Your task to perform on an android device: Search for custom made wallets on etsy.com Image 0: 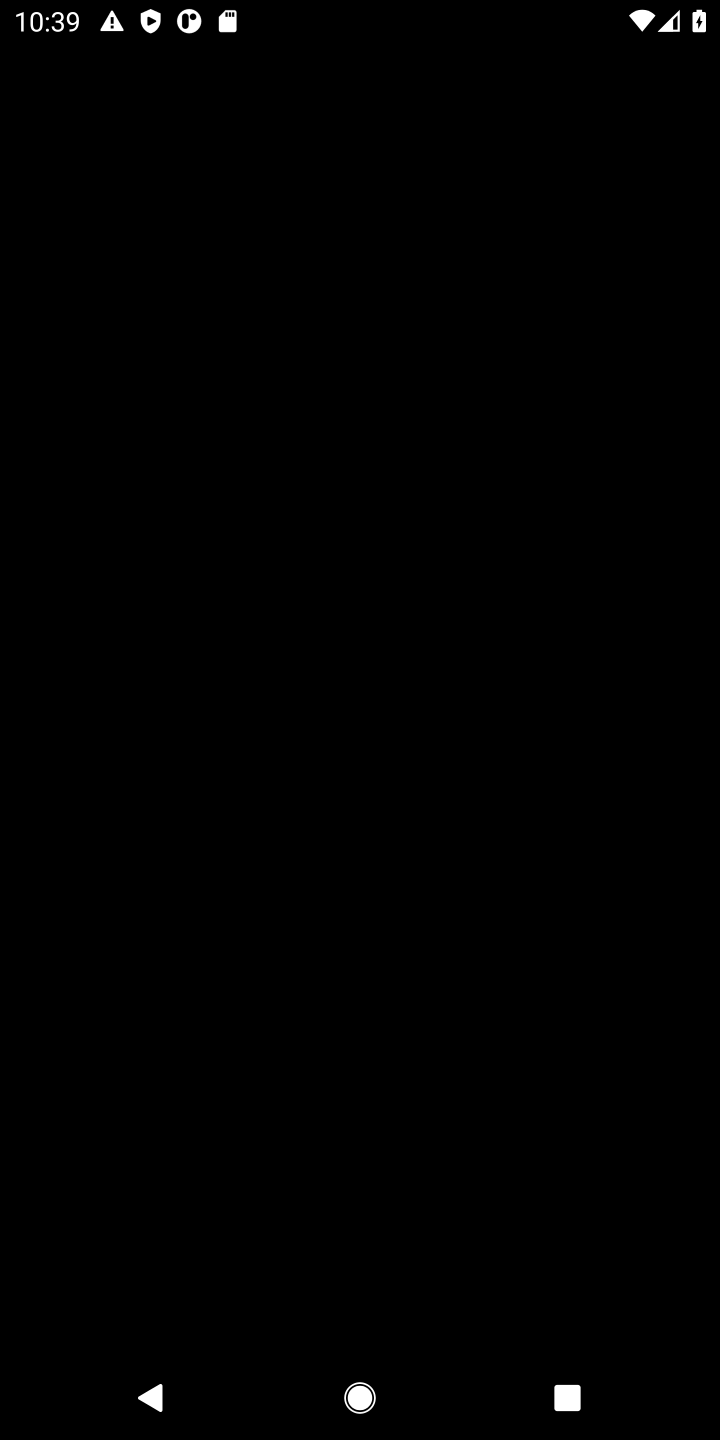
Step 0: press home button
Your task to perform on an android device: Search for custom made wallets on etsy.com Image 1: 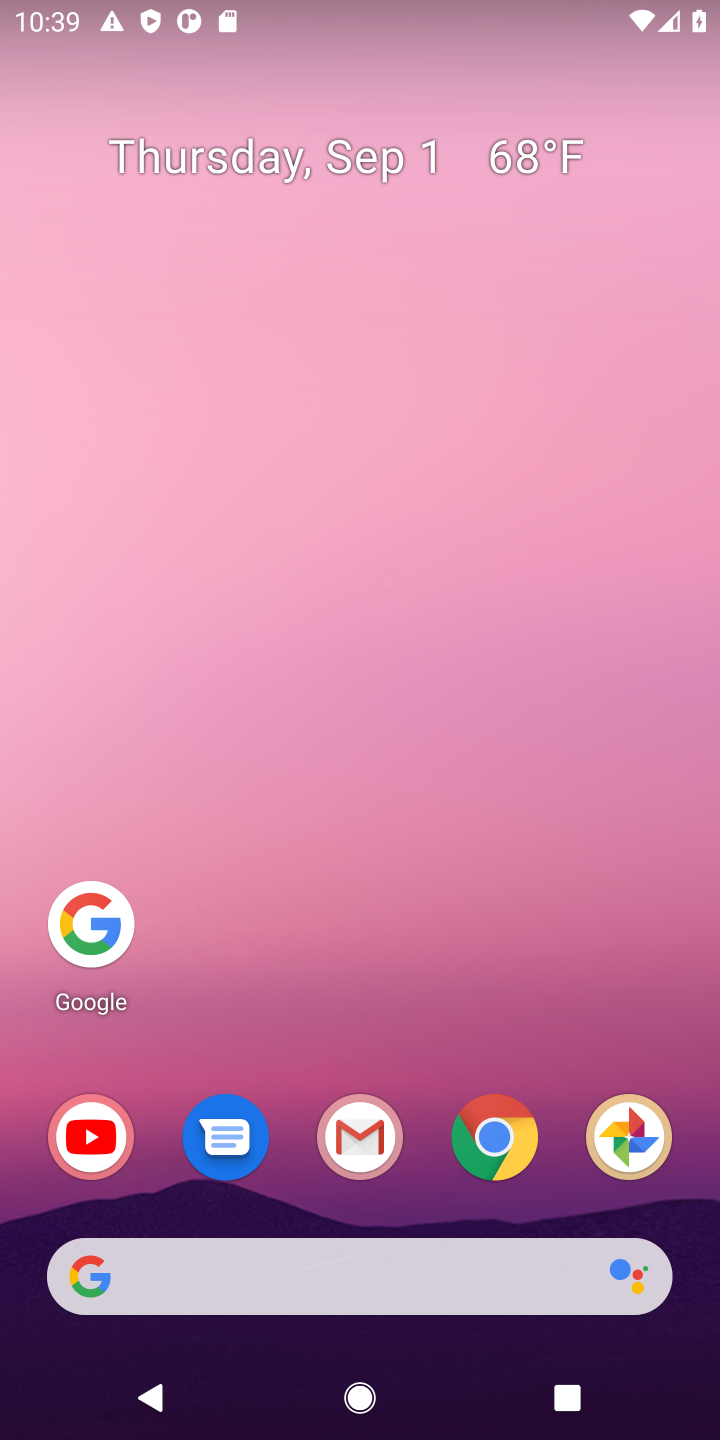
Step 1: click (312, 1261)
Your task to perform on an android device: Search for custom made wallets on etsy.com Image 2: 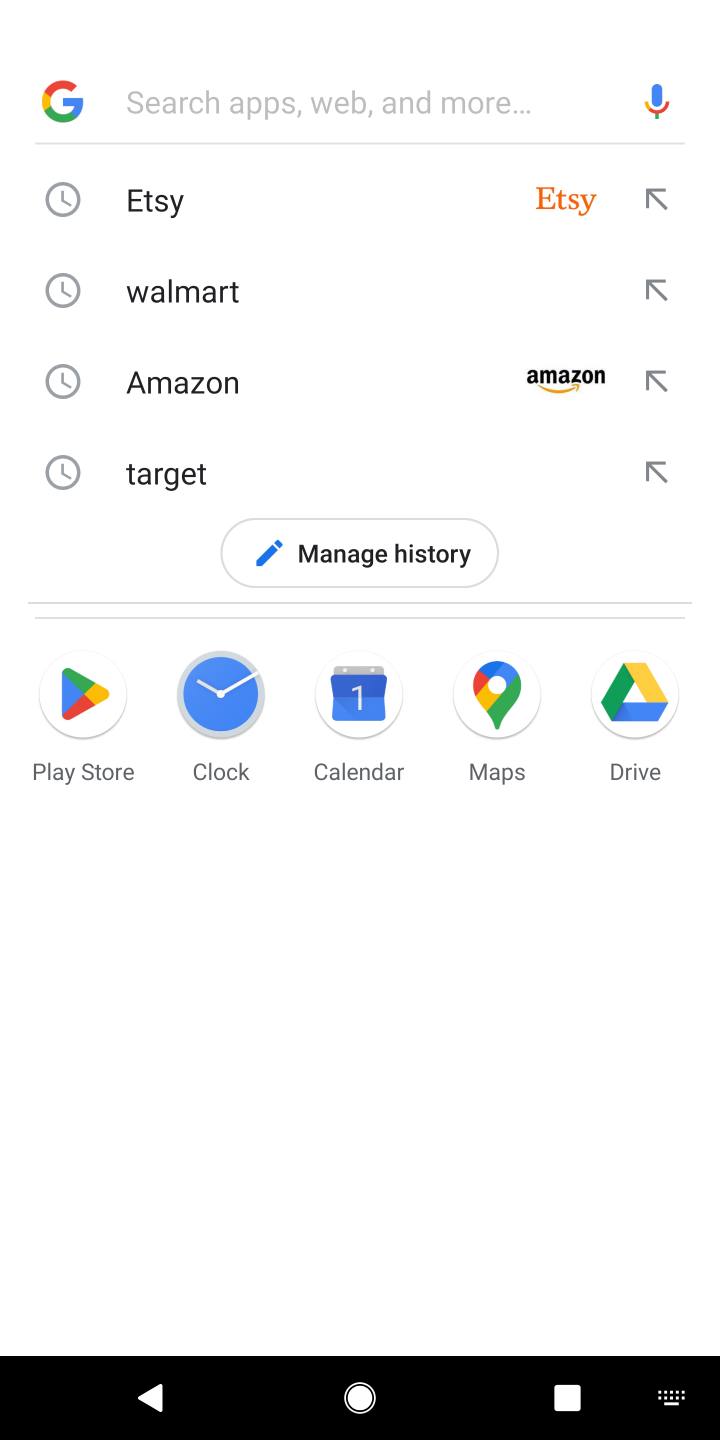
Step 2: click (143, 186)
Your task to perform on an android device: Search for custom made wallets on etsy.com Image 3: 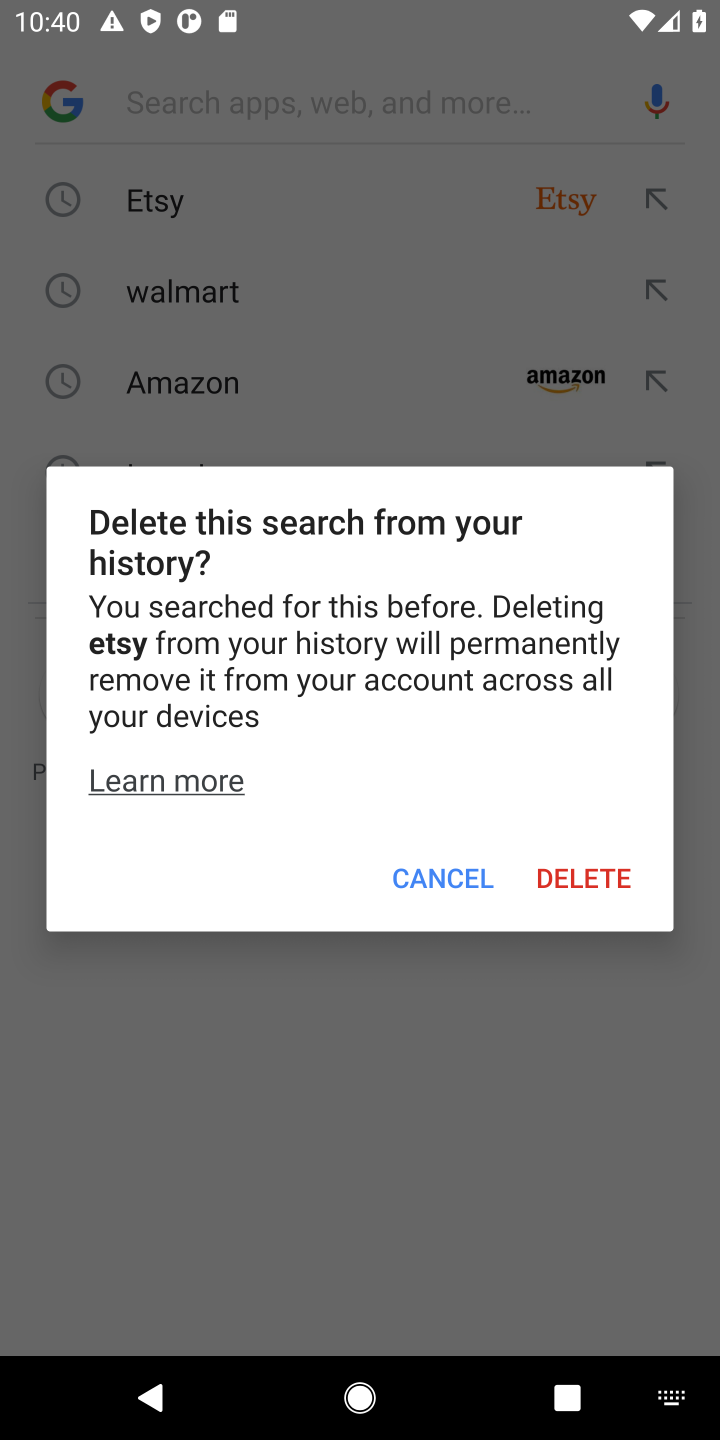
Step 3: click (419, 876)
Your task to perform on an android device: Search for custom made wallets on etsy.com Image 4: 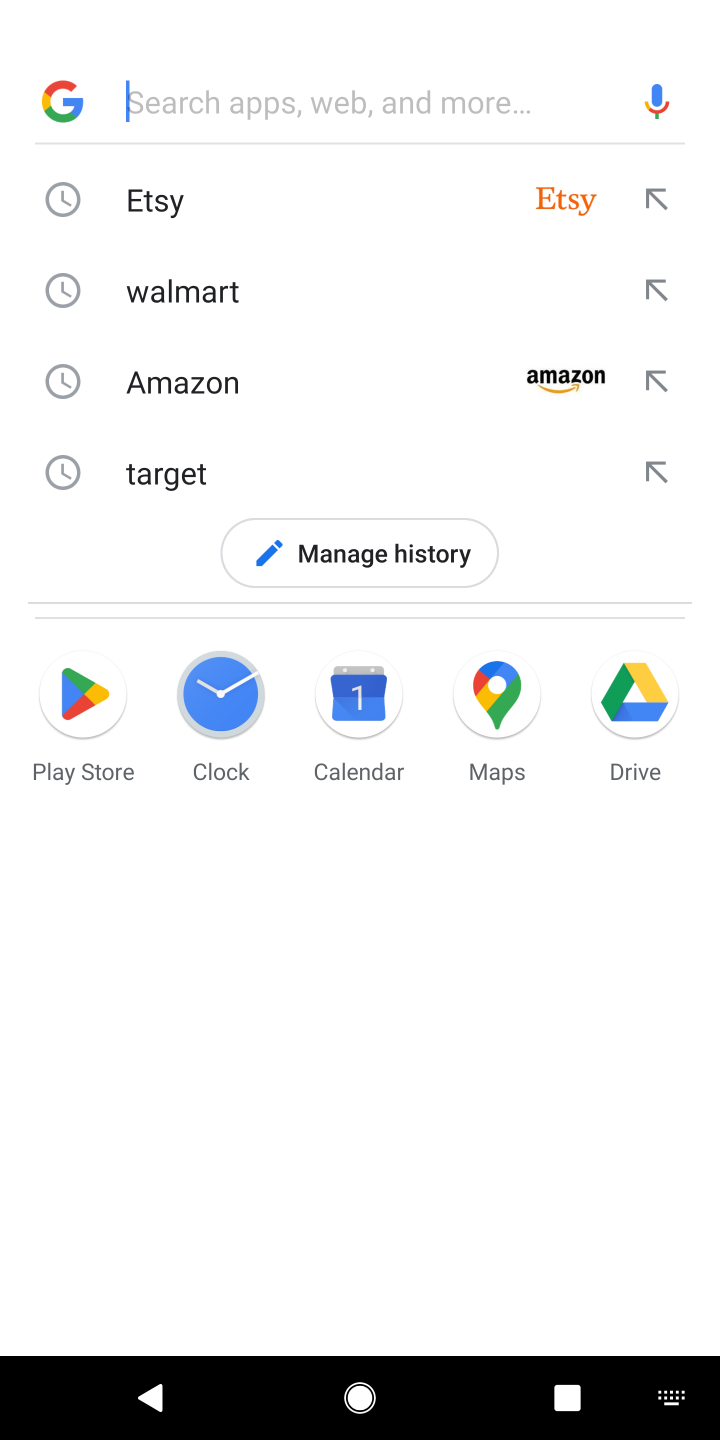
Step 4: click (206, 191)
Your task to perform on an android device: Search for custom made wallets on etsy.com Image 5: 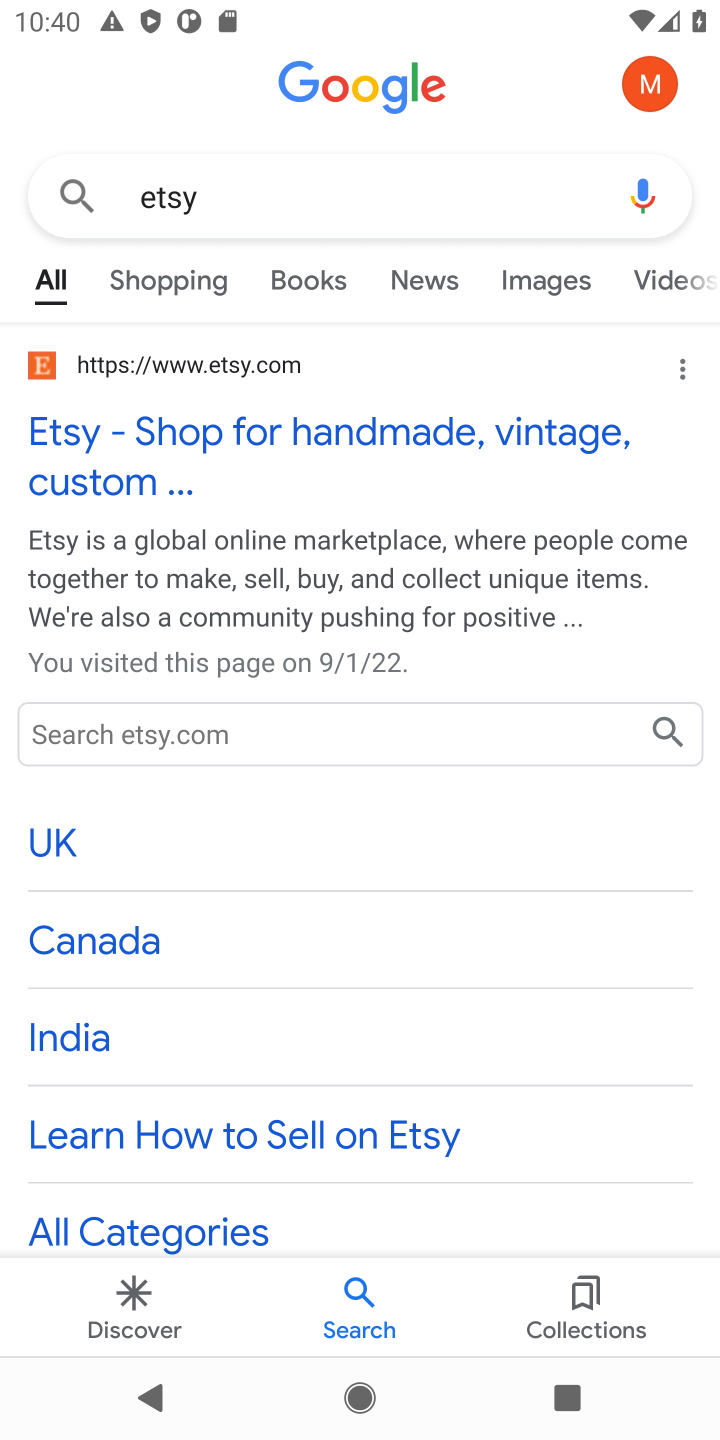
Step 5: click (158, 415)
Your task to perform on an android device: Search for custom made wallets on etsy.com Image 6: 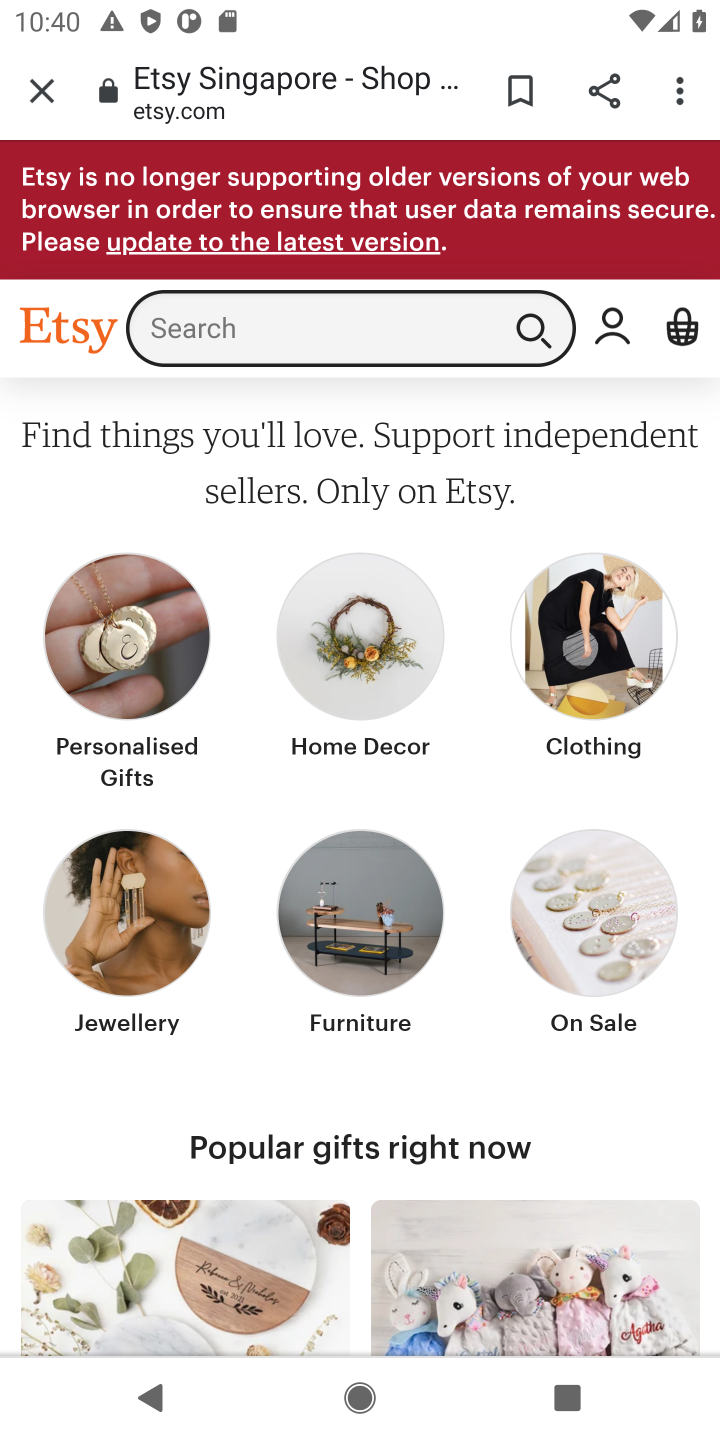
Step 6: click (223, 328)
Your task to perform on an android device: Search for custom made wallets on etsy.com Image 7: 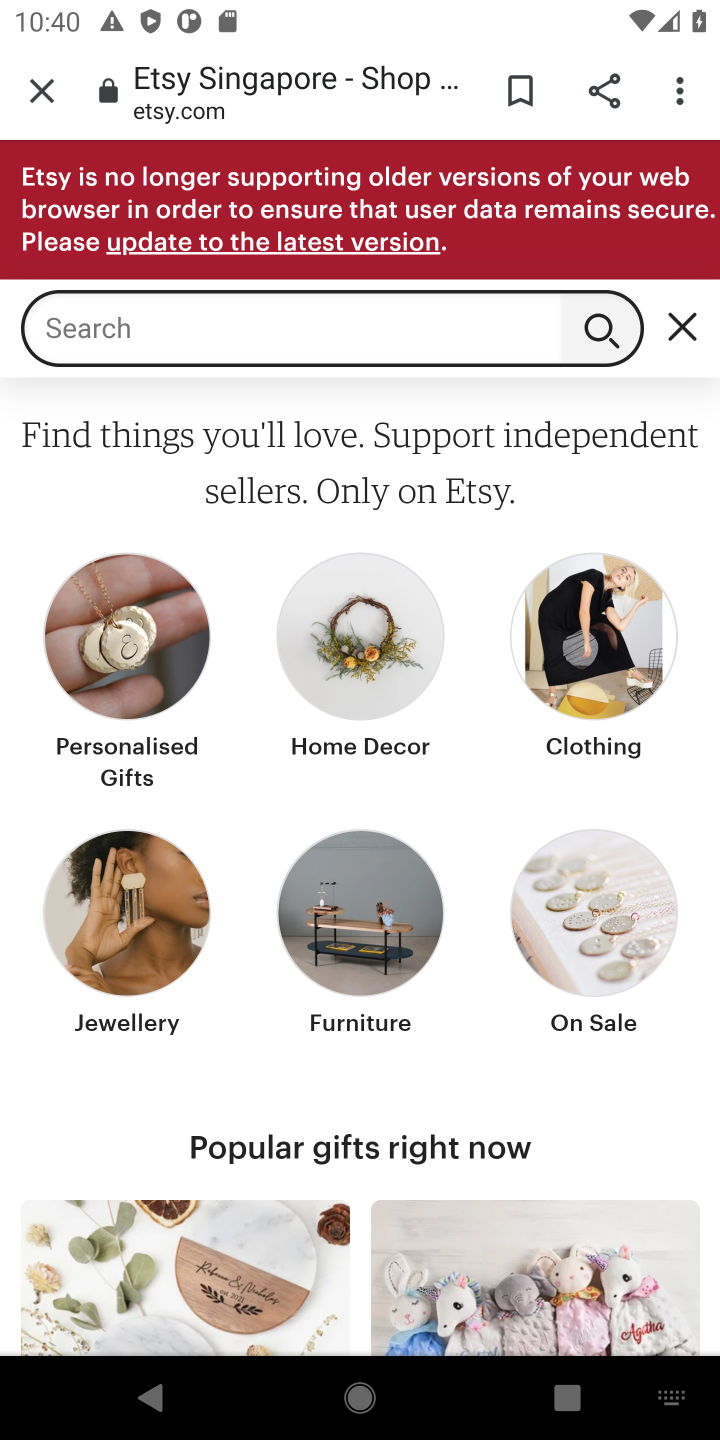
Step 7: type "custom made wallets"
Your task to perform on an android device: Search for custom made wallets on etsy.com Image 8: 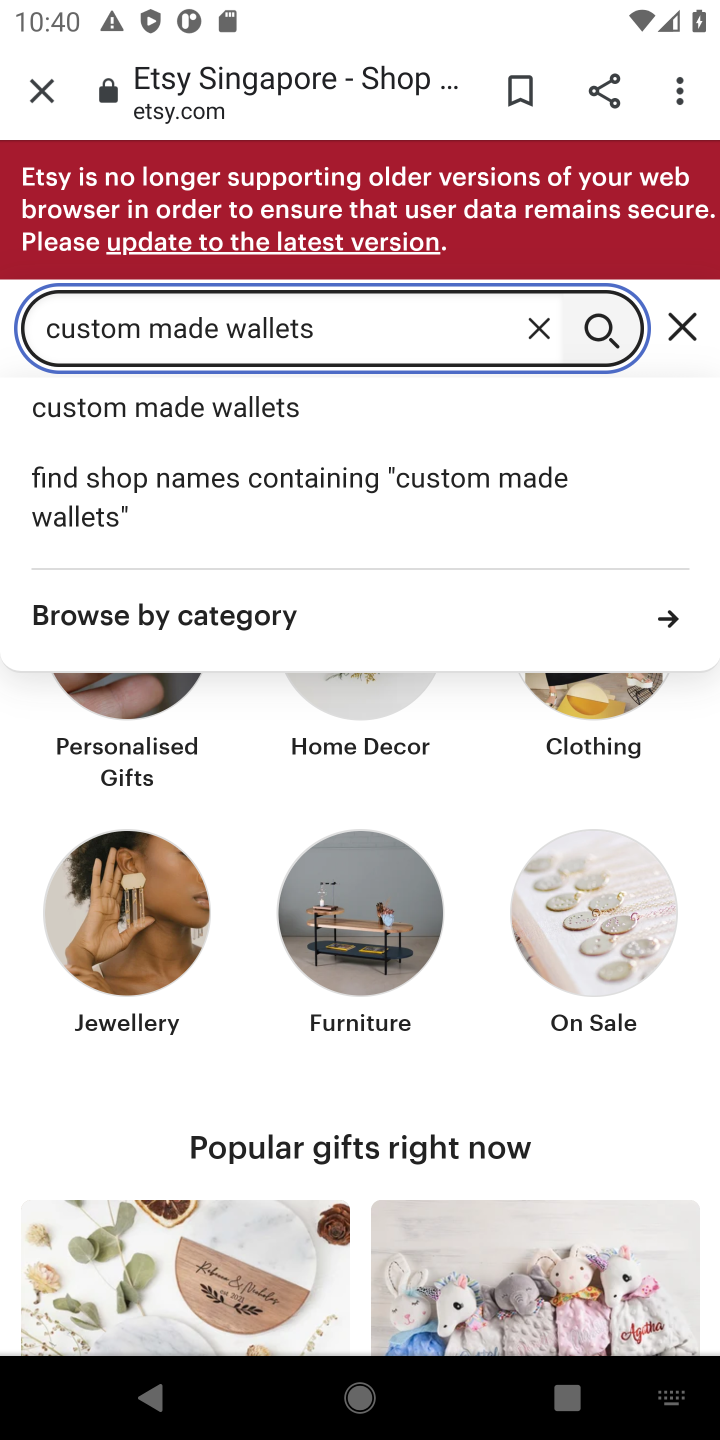
Step 8: click (283, 399)
Your task to perform on an android device: Search for custom made wallets on etsy.com Image 9: 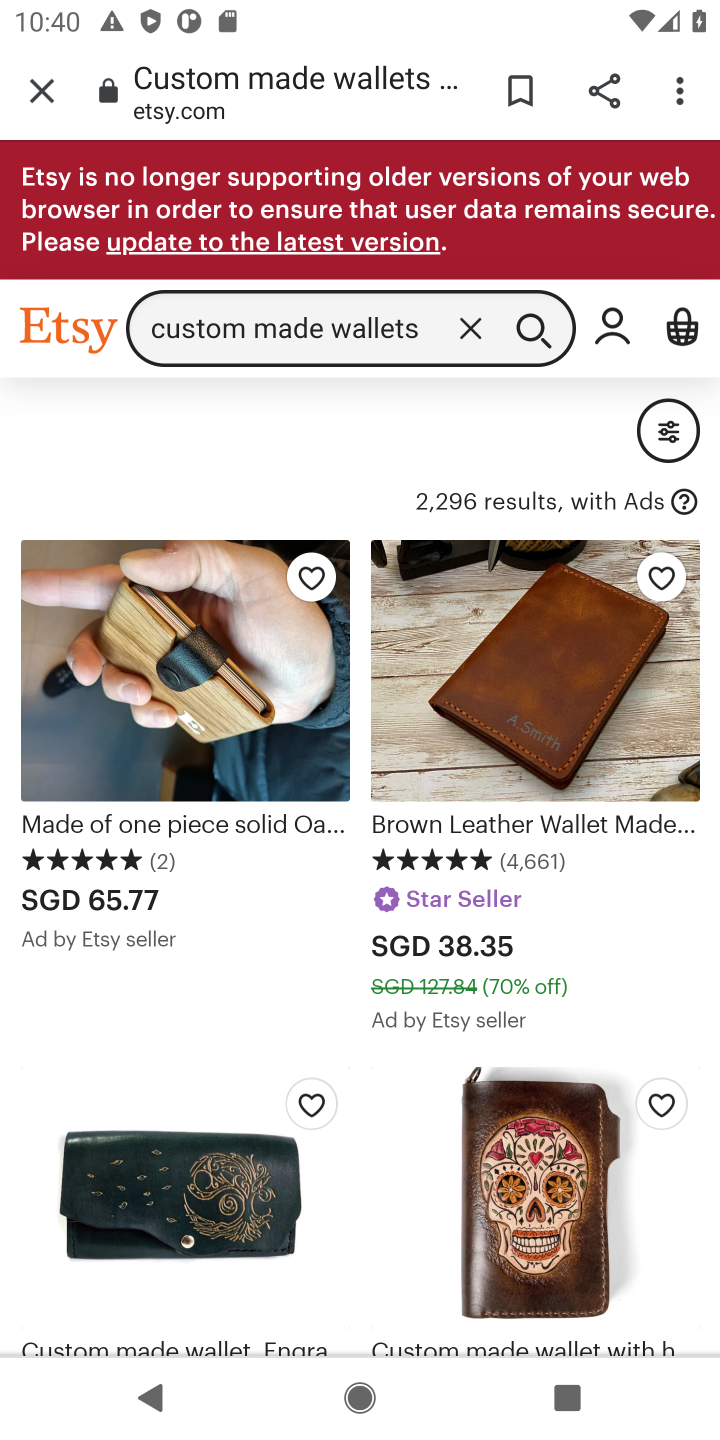
Step 9: task complete